Your task to perform on an android device: What's the weather going to be tomorrow? Image 0: 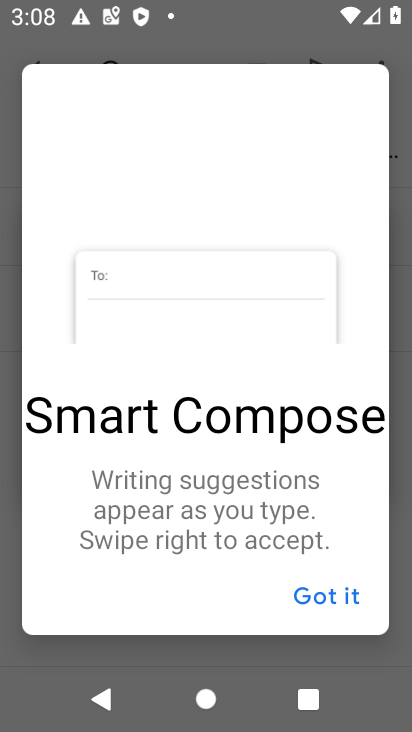
Step 0: press home button
Your task to perform on an android device: What's the weather going to be tomorrow? Image 1: 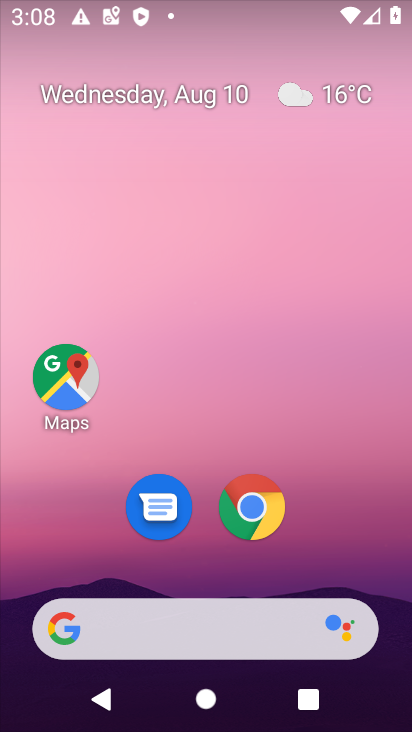
Step 1: click (338, 99)
Your task to perform on an android device: What's the weather going to be tomorrow? Image 2: 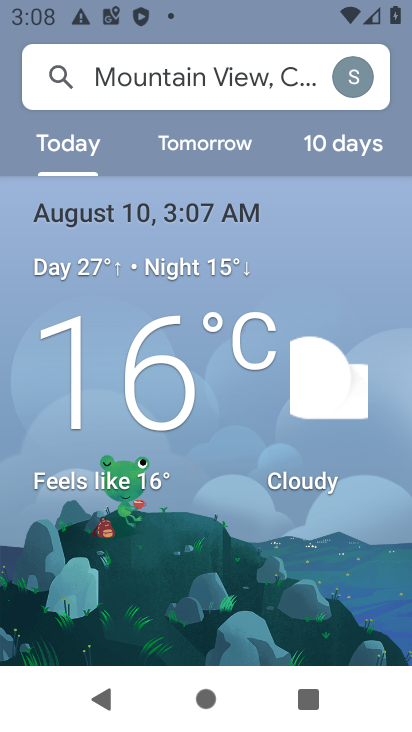
Step 2: click (223, 144)
Your task to perform on an android device: What's the weather going to be tomorrow? Image 3: 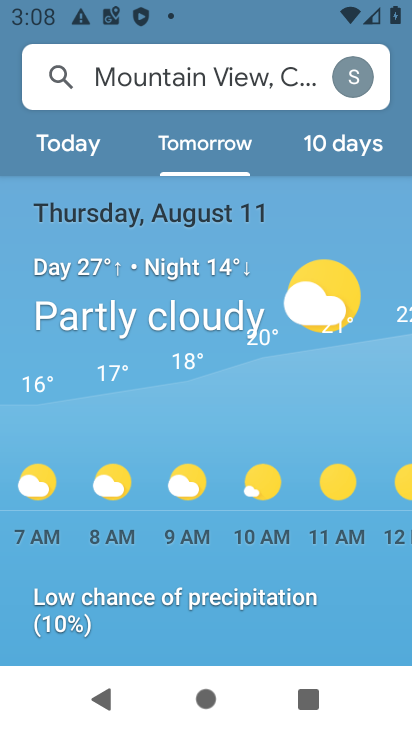
Step 3: task complete